Your task to perform on an android device: Search for "asus rog" on ebay.com, select the first entry, add it to the cart, then select checkout. Image 0: 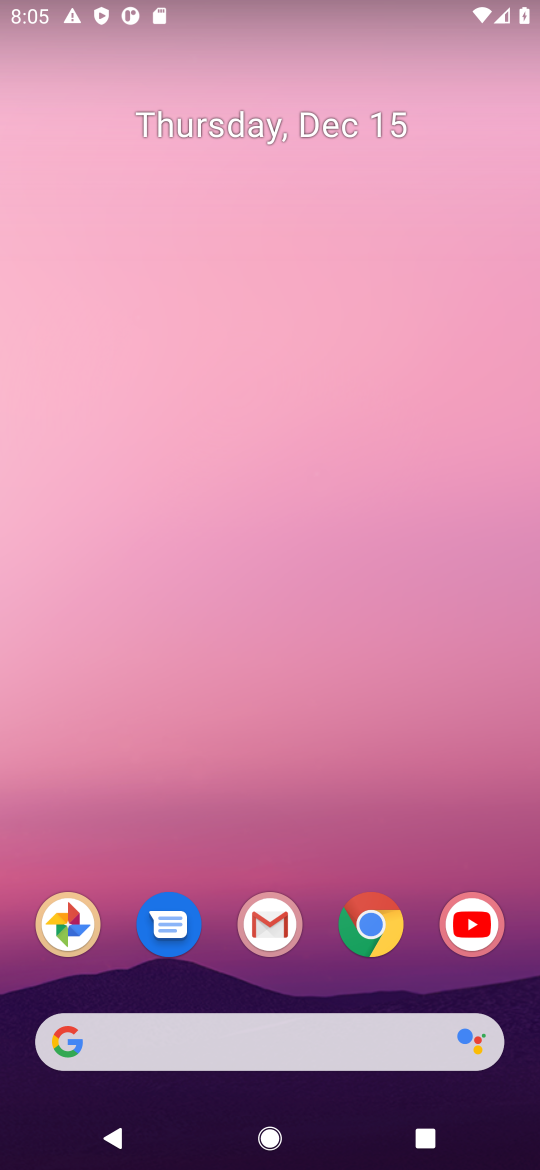
Step 0: click (356, 941)
Your task to perform on an android device: Search for "asus rog" on ebay.com, select the first entry, add it to the cart, then select checkout. Image 1: 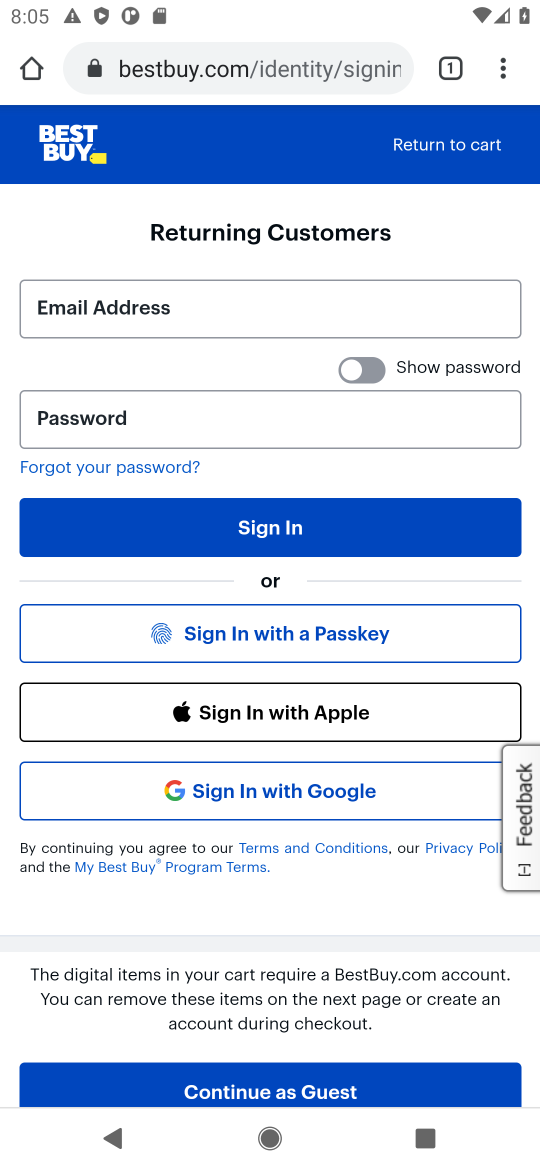
Step 1: click (199, 75)
Your task to perform on an android device: Search for "asus rog" on ebay.com, select the first entry, add it to the cart, then select checkout. Image 2: 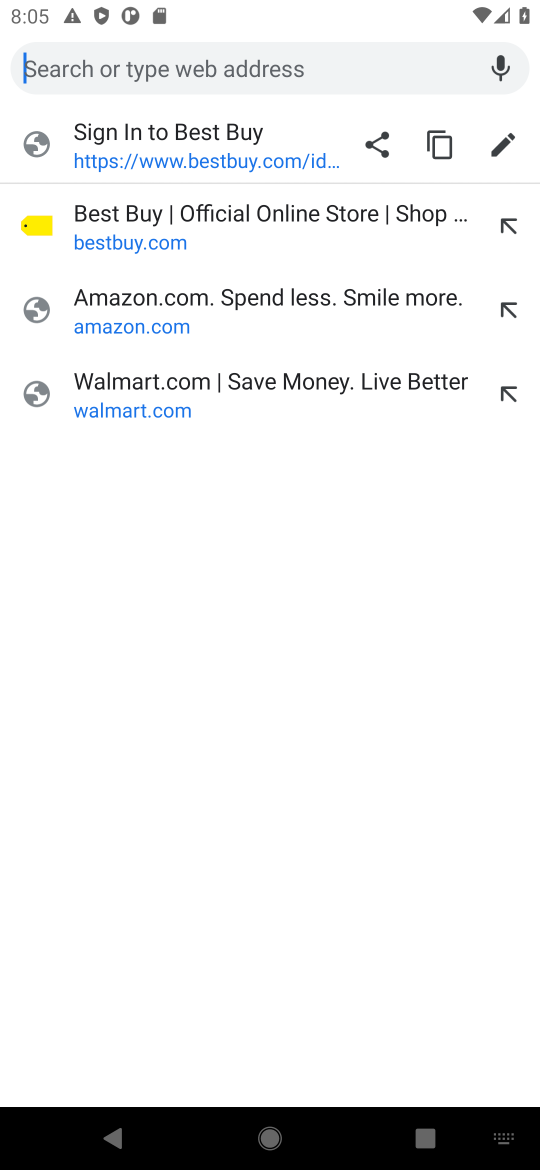
Step 2: type "ebay"
Your task to perform on an android device: Search for "asus rog" on ebay.com, select the first entry, add it to the cart, then select checkout. Image 3: 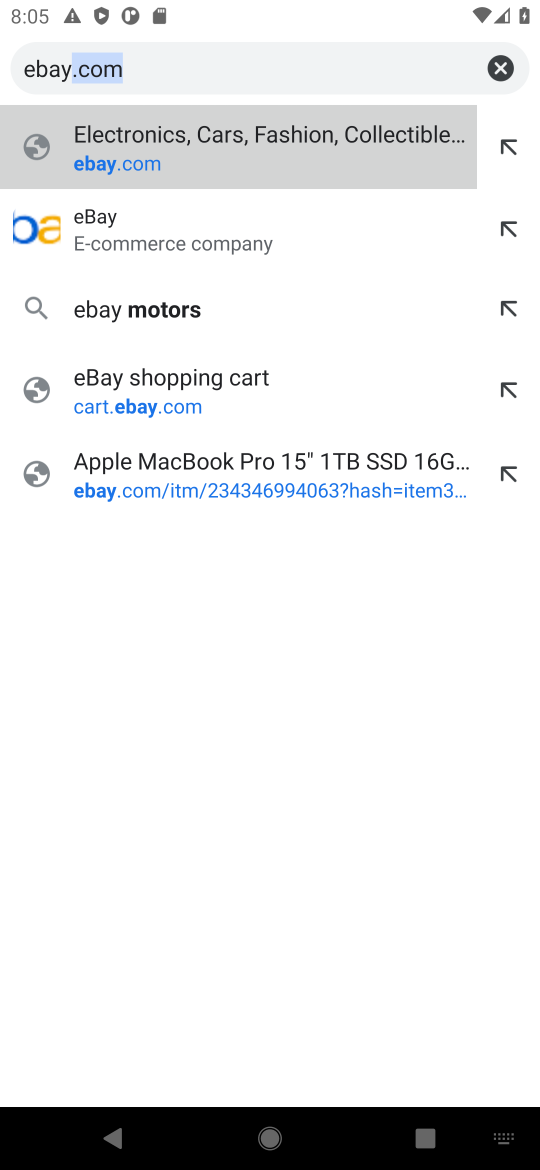
Step 3: click (134, 234)
Your task to perform on an android device: Search for "asus rog" on ebay.com, select the first entry, add it to the cart, then select checkout. Image 4: 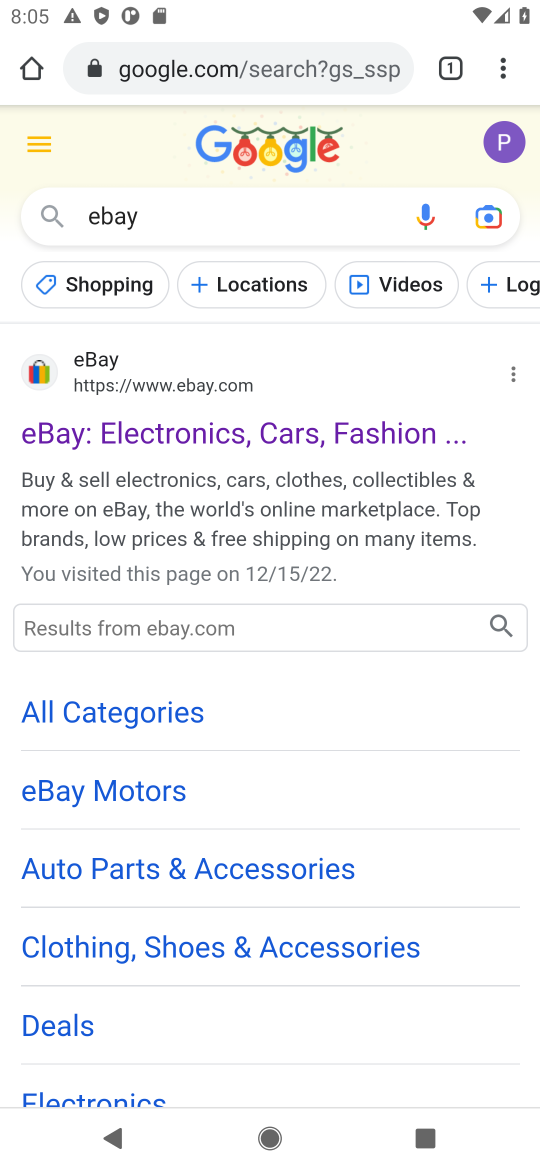
Step 4: click (120, 438)
Your task to perform on an android device: Search for "asus rog" on ebay.com, select the first entry, add it to the cart, then select checkout. Image 5: 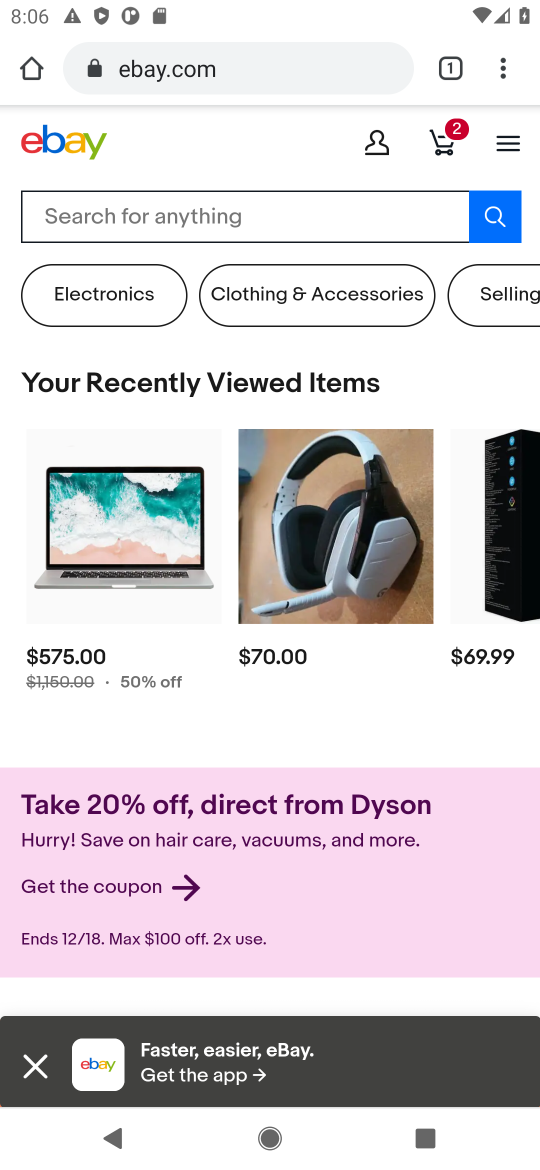
Step 5: click (301, 214)
Your task to perform on an android device: Search for "asus rog" on ebay.com, select the first entry, add it to the cart, then select checkout. Image 6: 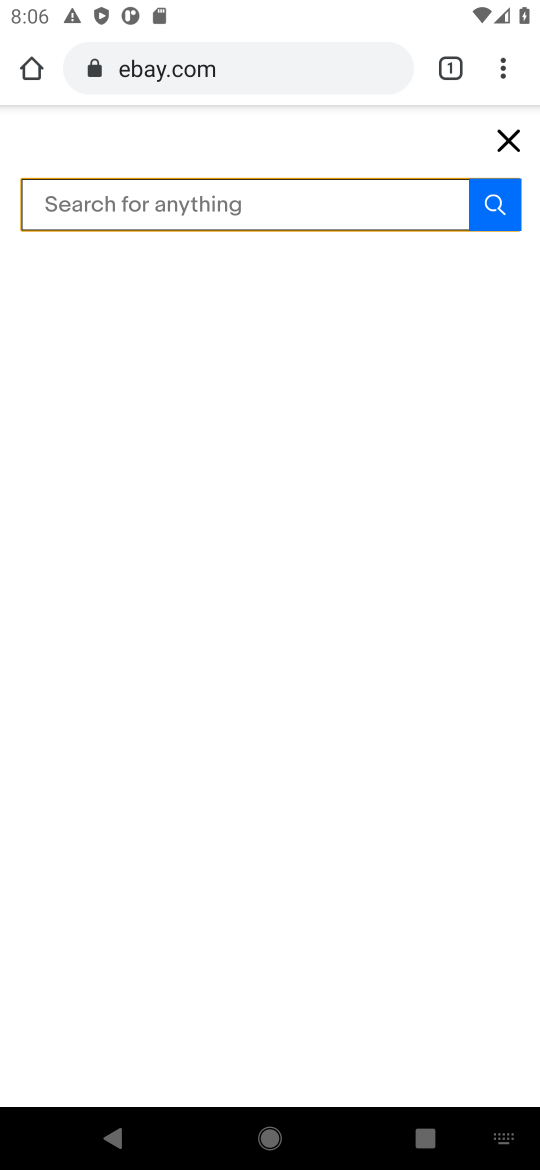
Step 6: type "asus rog"
Your task to perform on an android device: Search for "asus rog" on ebay.com, select the first entry, add it to the cart, then select checkout. Image 7: 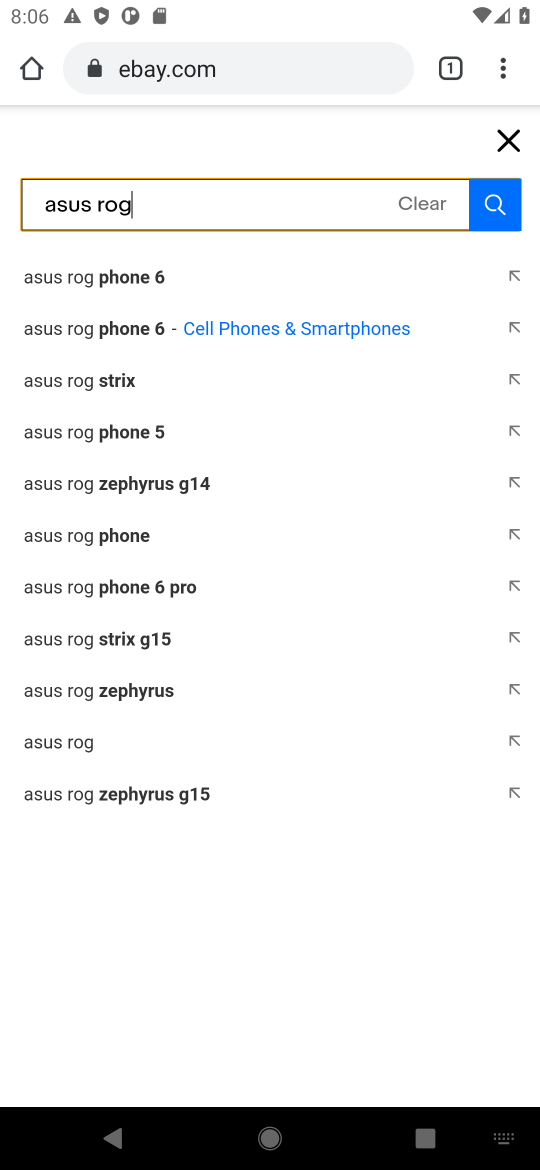
Step 7: click (479, 207)
Your task to perform on an android device: Search for "asus rog" on ebay.com, select the first entry, add it to the cart, then select checkout. Image 8: 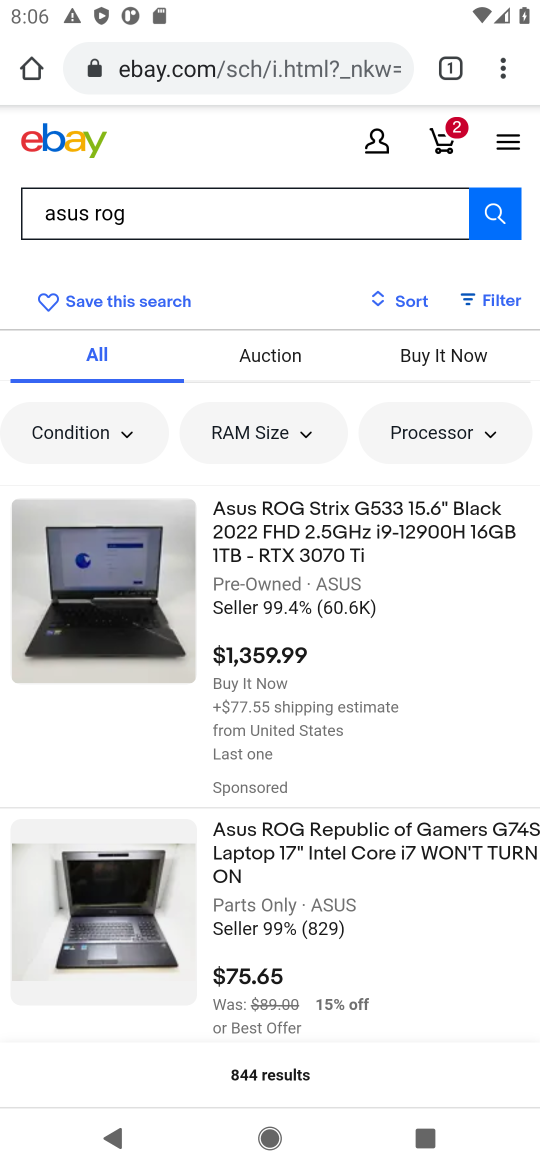
Step 8: click (401, 528)
Your task to perform on an android device: Search for "asus rog" on ebay.com, select the first entry, add it to the cart, then select checkout. Image 9: 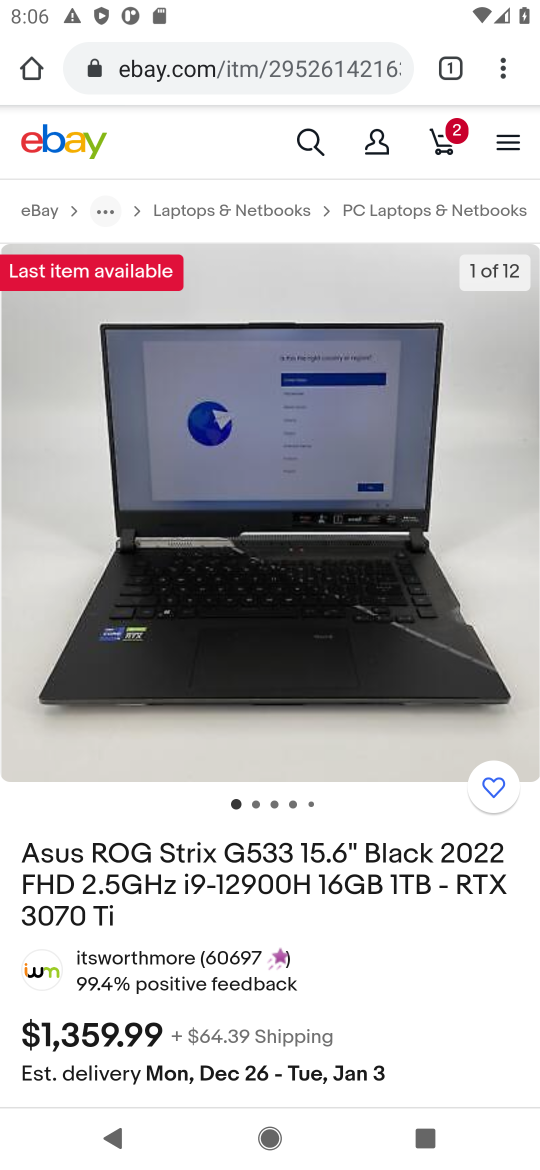
Step 9: drag from (122, 1009) to (163, 449)
Your task to perform on an android device: Search for "asus rog" on ebay.com, select the first entry, add it to the cart, then select checkout. Image 10: 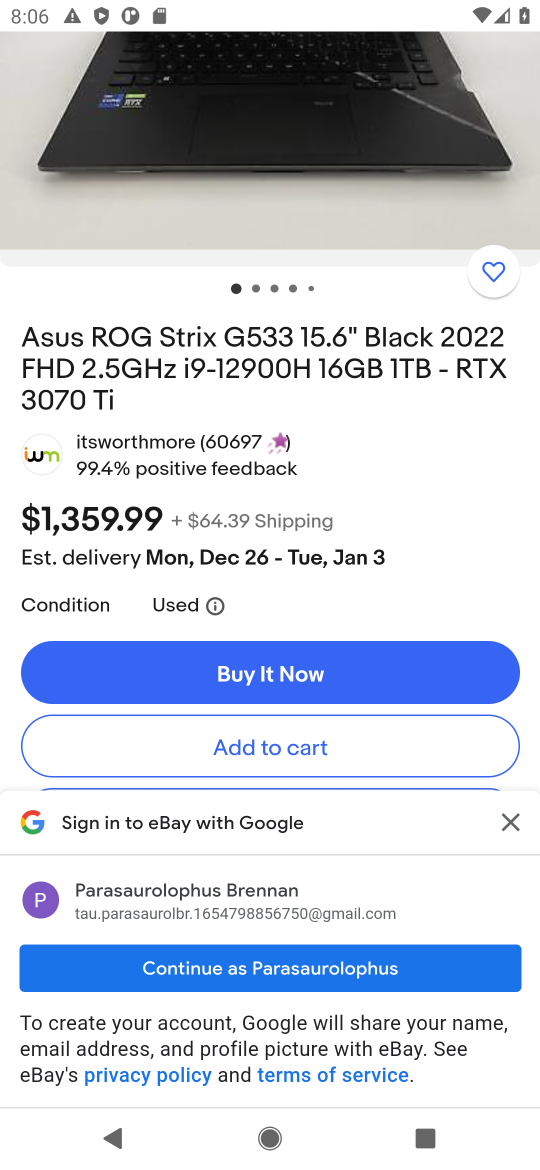
Step 10: click (276, 747)
Your task to perform on an android device: Search for "asus rog" on ebay.com, select the first entry, add it to the cart, then select checkout. Image 11: 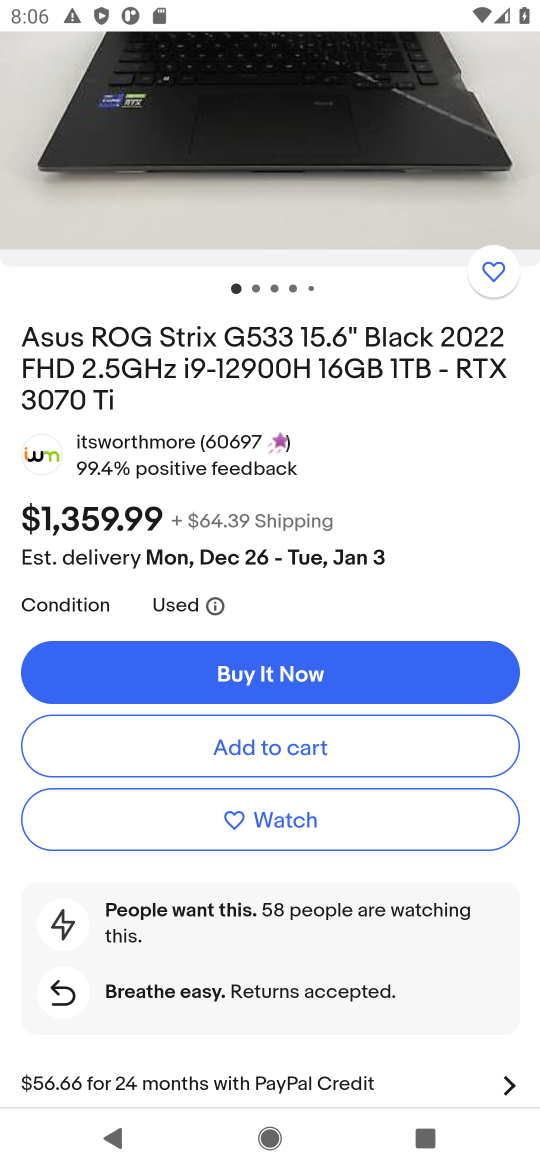
Step 11: click (276, 747)
Your task to perform on an android device: Search for "asus rog" on ebay.com, select the first entry, add it to the cart, then select checkout. Image 12: 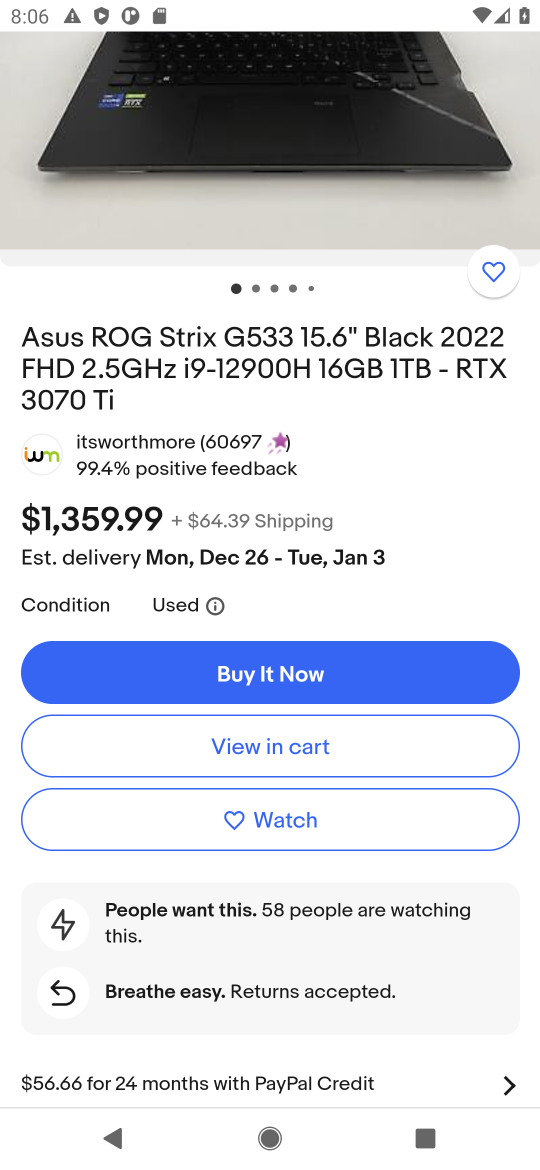
Step 12: click (276, 747)
Your task to perform on an android device: Search for "asus rog" on ebay.com, select the first entry, add it to the cart, then select checkout. Image 13: 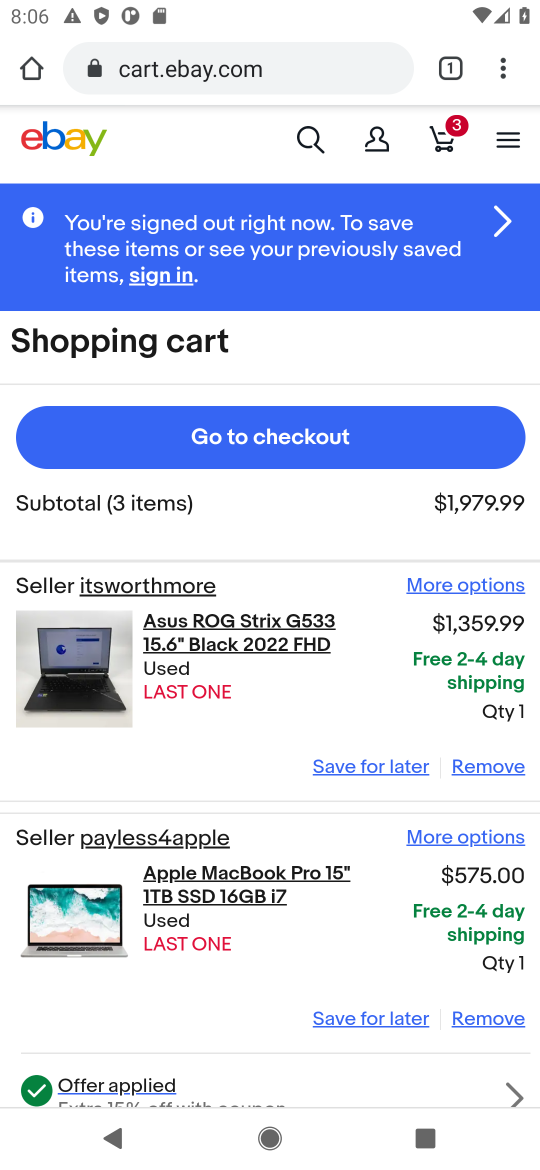
Step 13: click (280, 451)
Your task to perform on an android device: Search for "asus rog" on ebay.com, select the first entry, add it to the cart, then select checkout. Image 14: 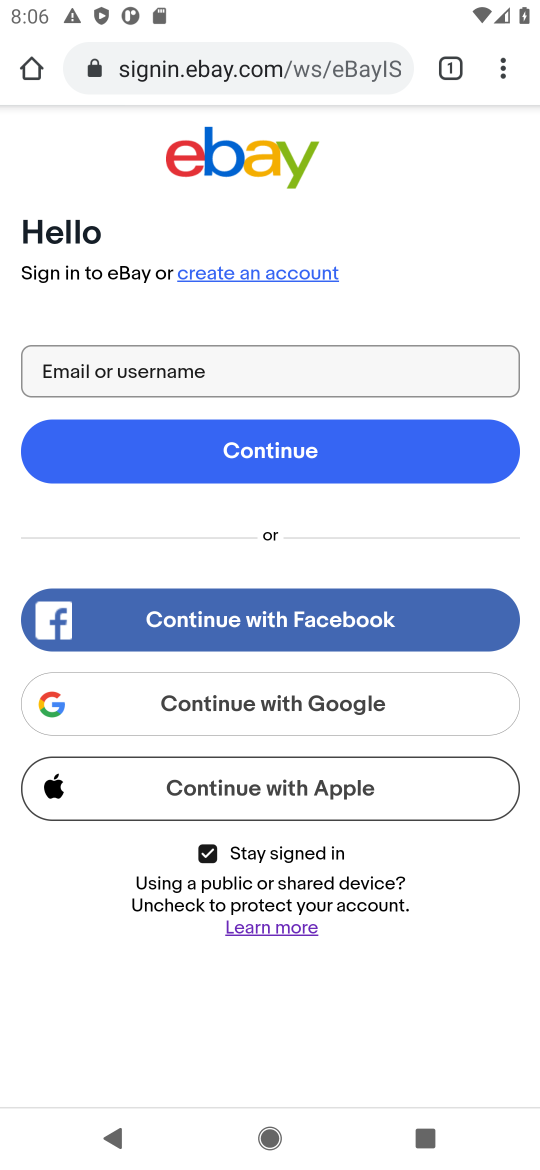
Step 14: task complete